Your task to perform on an android device: check data usage Image 0: 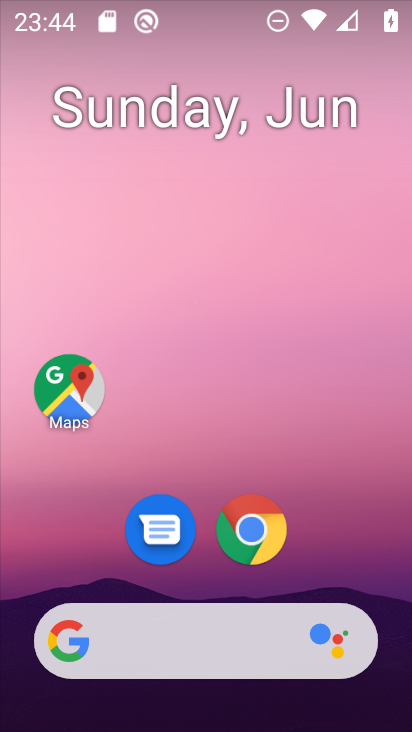
Step 0: drag from (404, 630) to (363, 11)
Your task to perform on an android device: check data usage Image 1: 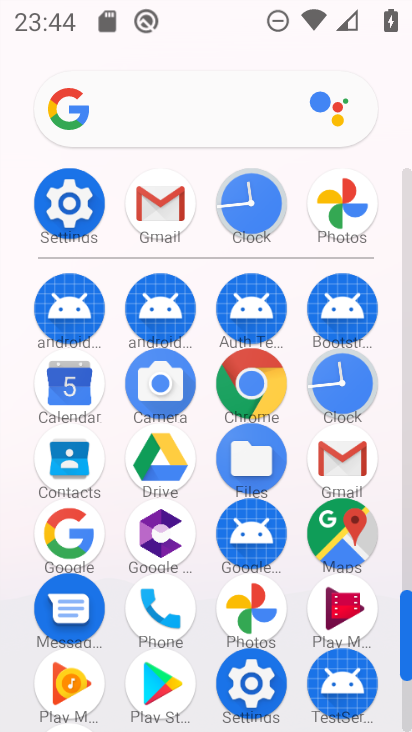
Step 1: click (249, 686)
Your task to perform on an android device: check data usage Image 2: 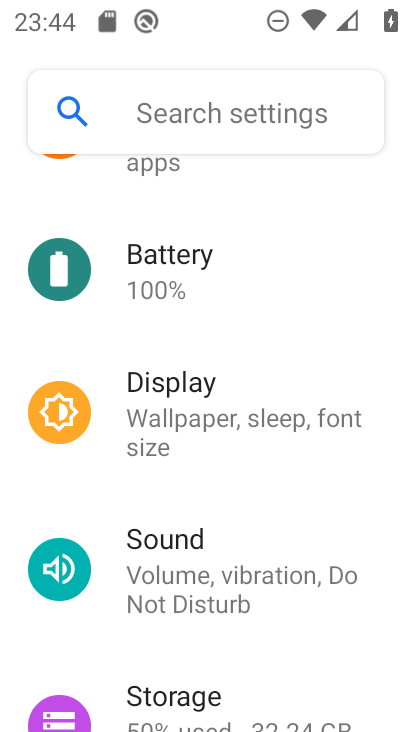
Step 2: drag from (329, 244) to (326, 522)
Your task to perform on an android device: check data usage Image 3: 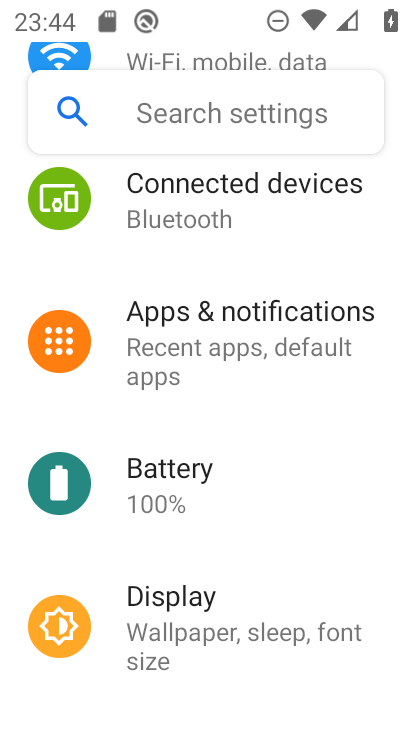
Step 3: drag from (345, 256) to (344, 560)
Your task to perform on an android device: check data usage Image 4: 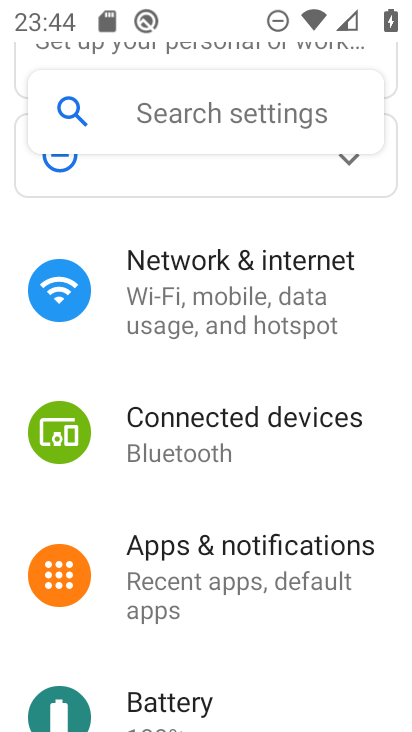
Step 4: click (194, 298)
Your task to perform on an android device: check data usage Image 5: 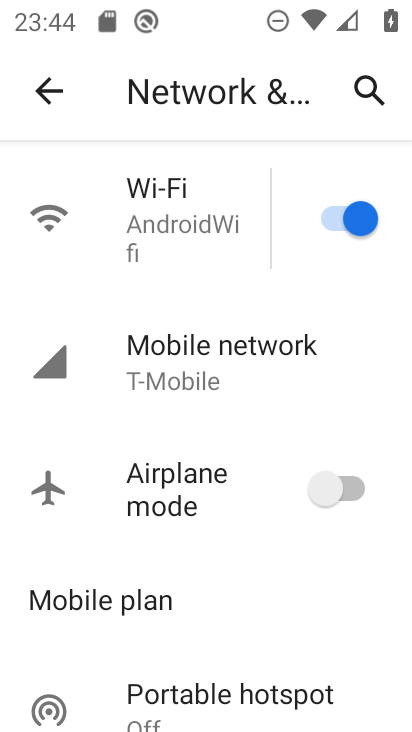
Step 5: click (194, 345)
Your task to perform on an android device: check data usage Image 6: 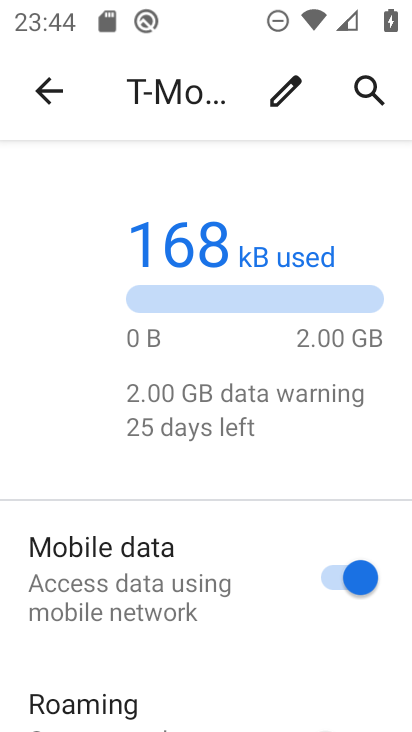
Step 6: task complete